Your task to perform on an android device: turn on priority inbox in the gmail app Image 0: 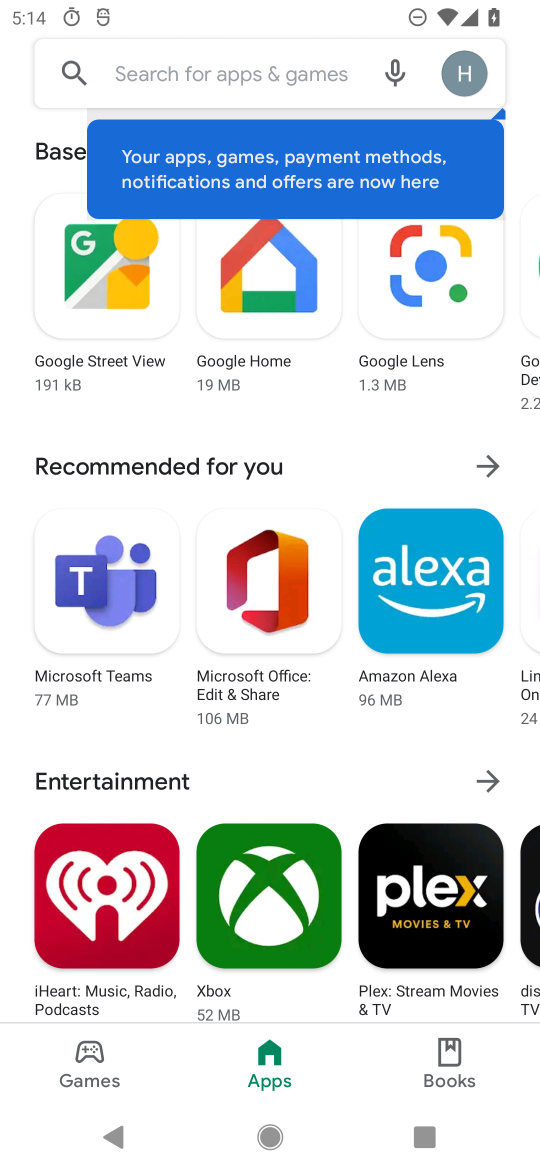
Step 0: press home button
Your task to perform on an android device: turn on priority inbox in the gmail app Image 1: 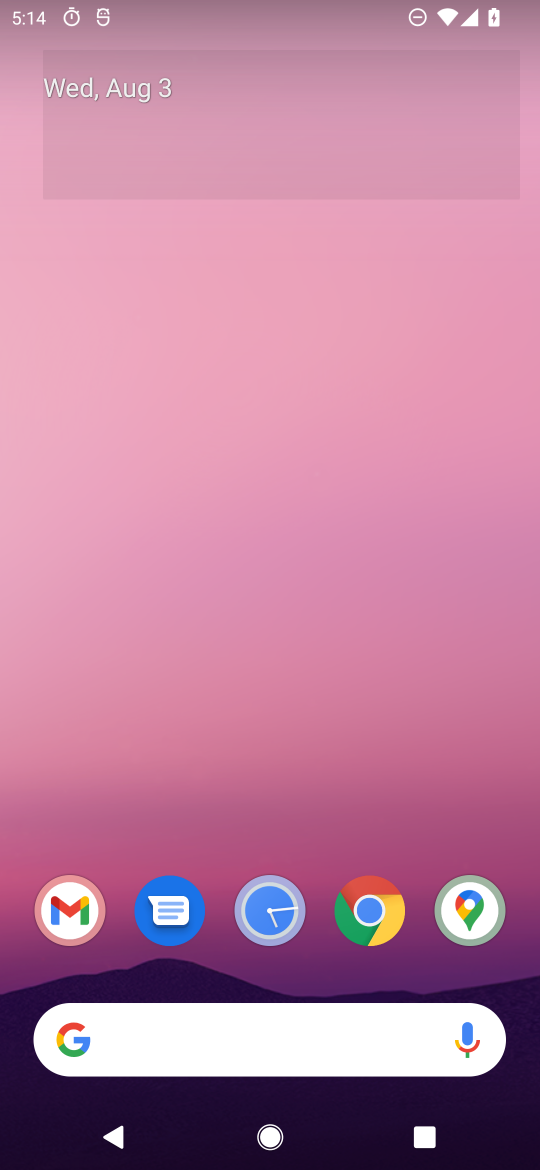
Step 1: drag from (43, 1159) to (312, 42)
Your task to perform on an android device: turn on priority inbox in the gmail app Image 2: 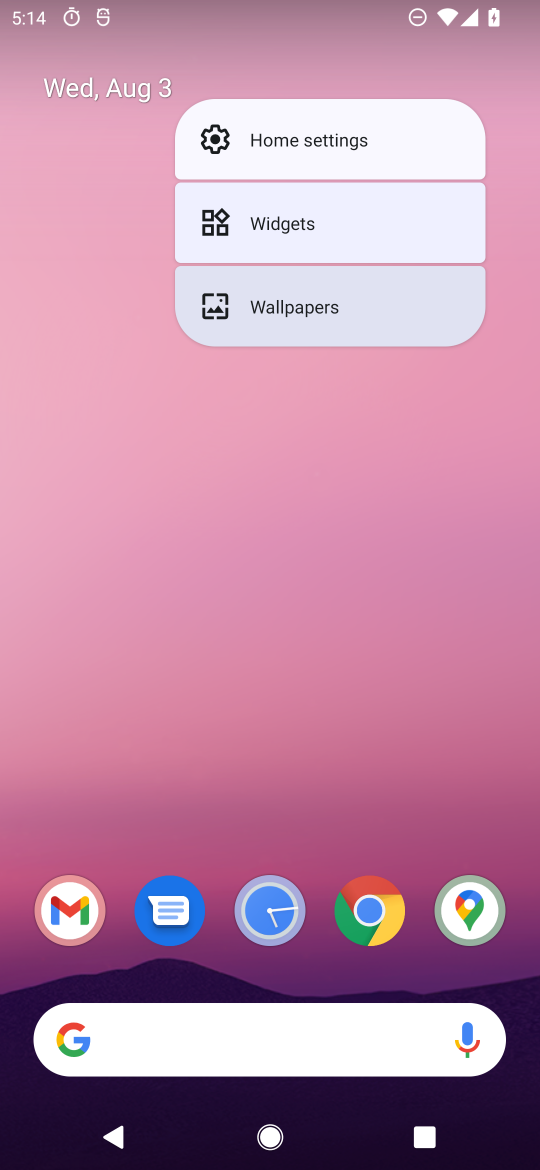
Step 2: drag from (133, 870) to (314, 42)
Your task to perform on an android device: turn on priority inbox in the gmail app Image 3: 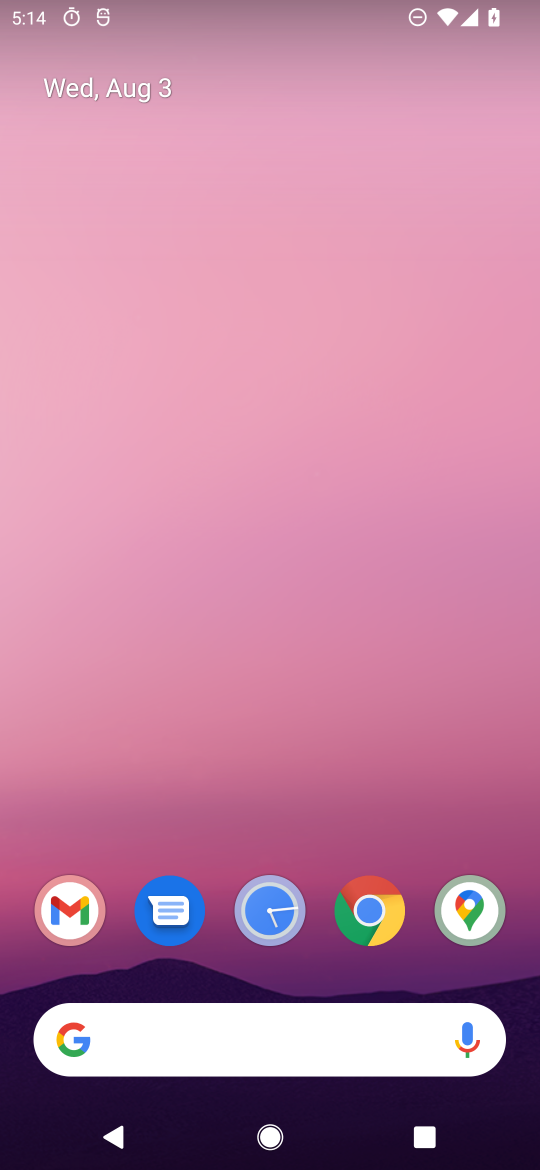
Step 3: drag from (30, 1105) to (434, 19)
Your task to perform on an android device: turn on priority inbox in the gmail app Image 4: 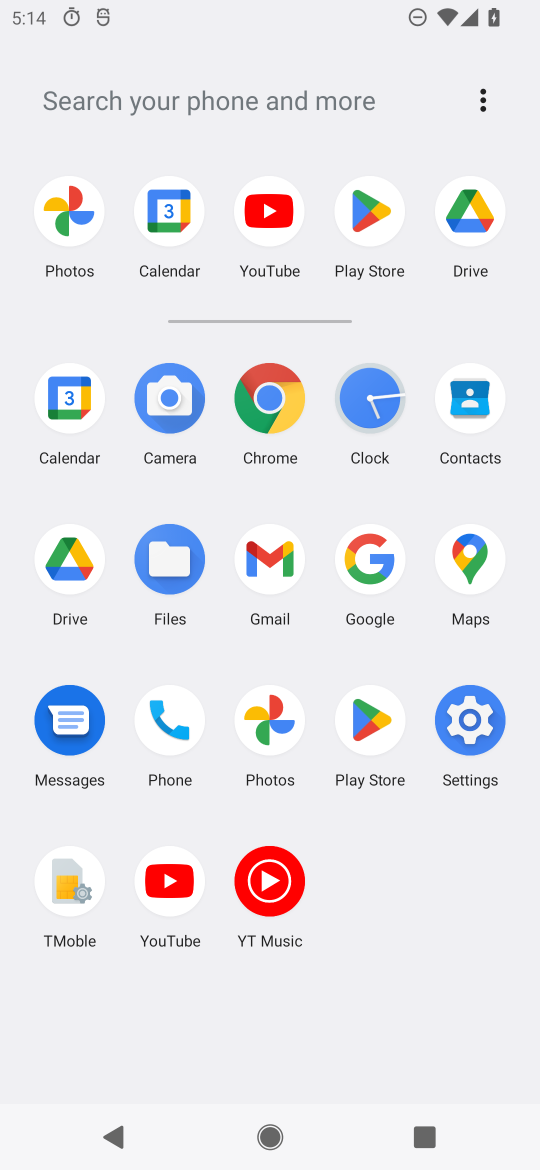
Step 4: click (258, 555)
Your task to perform on an android device: turn on priority inbox in the gmail app Image 5: 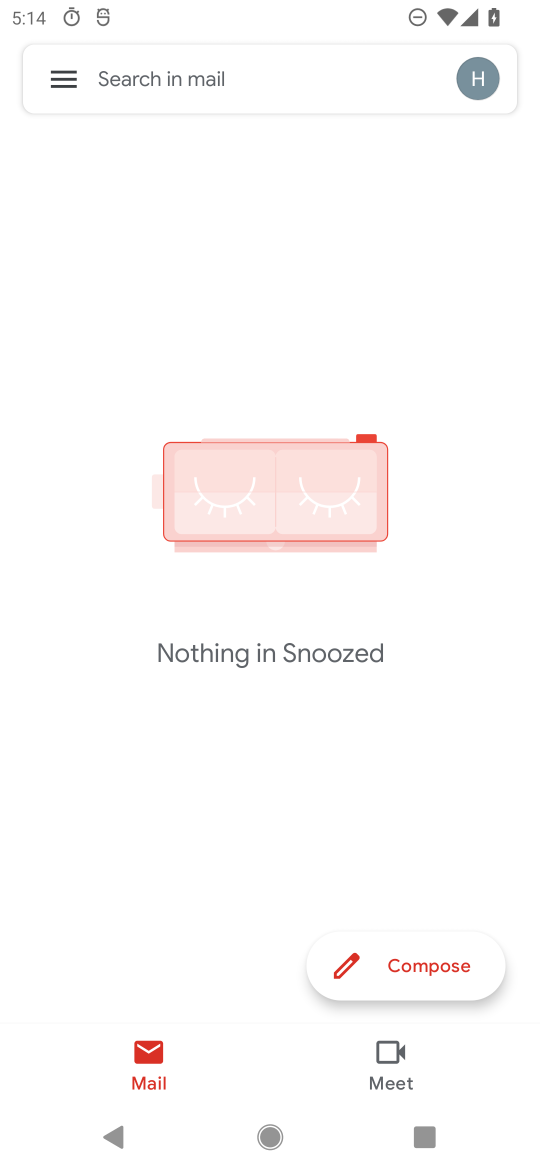
Step 5: click (50, 67)
Your task to perform on an android device: turn on priority inbox in the gmail app Image 6: 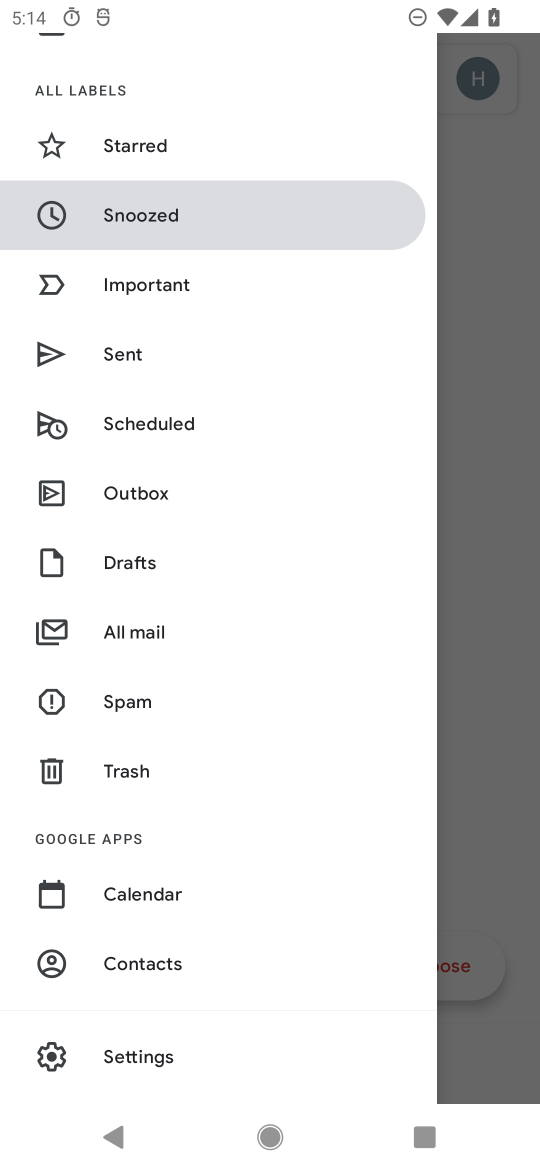
Step 6: click (99, 1050)
Your task to perform on an android device: turn on priority inbox in the gmail app Image 7: 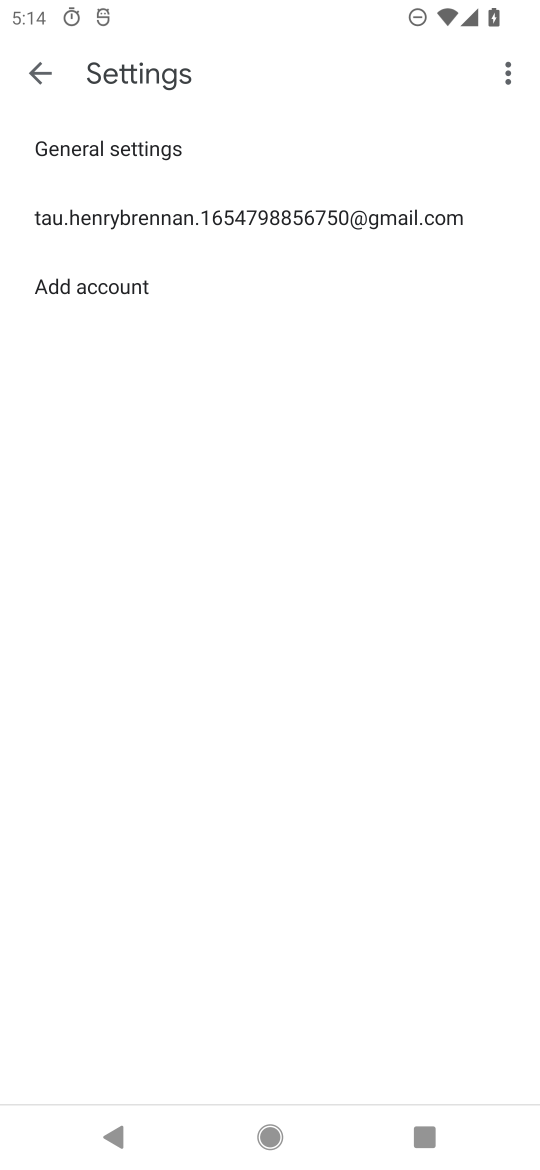
Step 7: click (121, 212)
Your task to perform on an android device: turn on priority inbox in the gmail app Image 8: 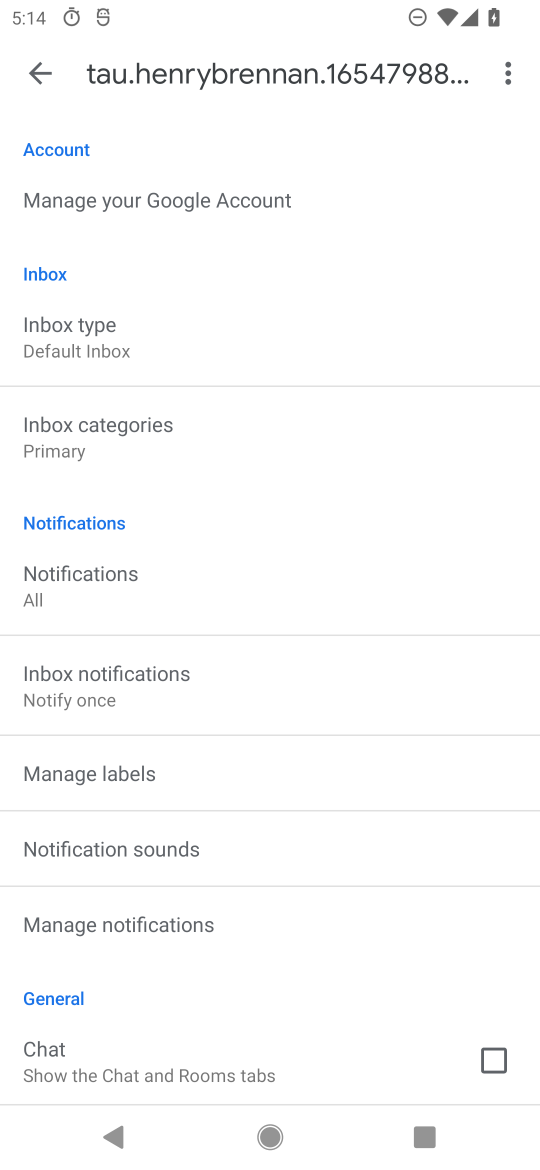
Step 8: click (80, 348)
Your task to perform on an android device: turn on priority inbox in the gmail app Image 9: 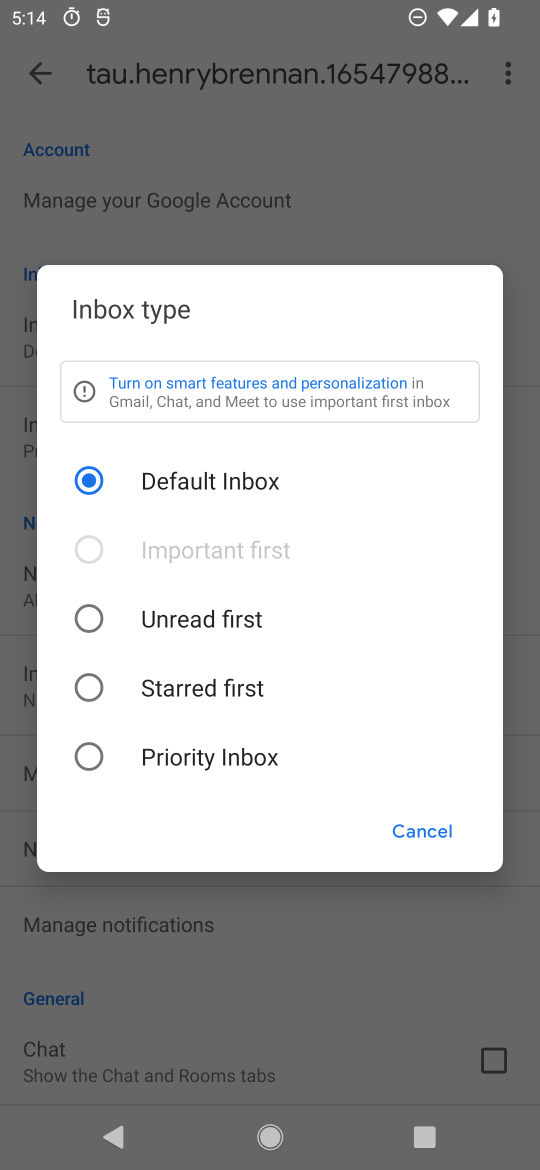
Step 9: click (114, 761)
Your task to perform on an android device: turn on priority inbox in the gmail app Image 10: 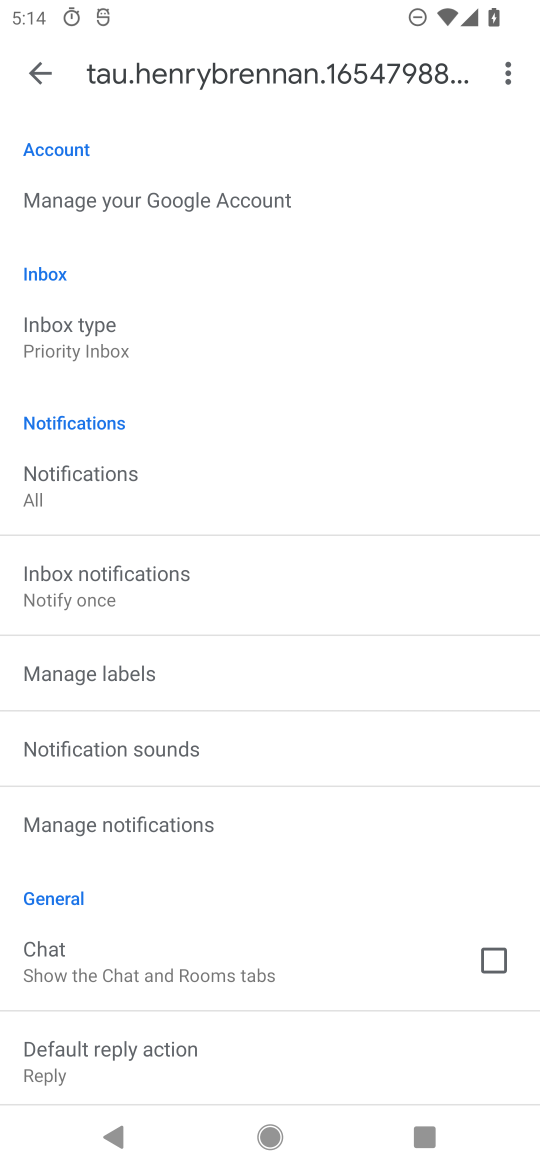
Step 10: task complete